Your task to perform on an android device: Turn on the flashlight Image 0: 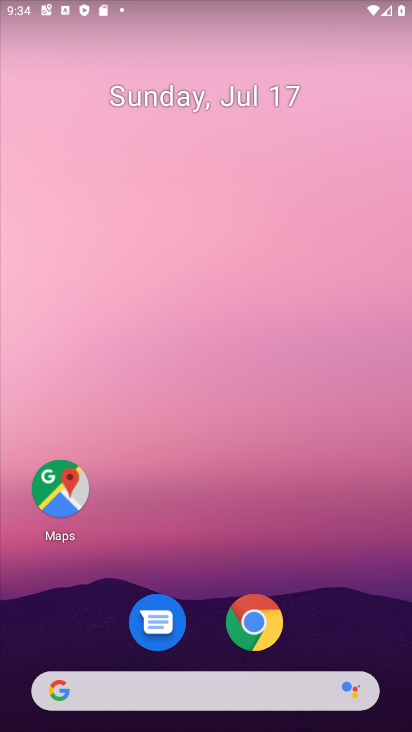
Step 0: drag from (327, 18) to (242, 705)
Your task to perform on an android device: Turn on the flashlight Image 1: 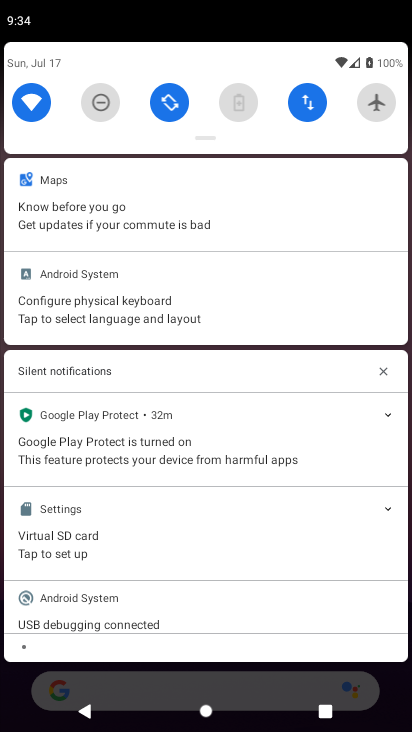
Step 1: task complete